Your task to perform on an android device: Go to Maps Image 0: 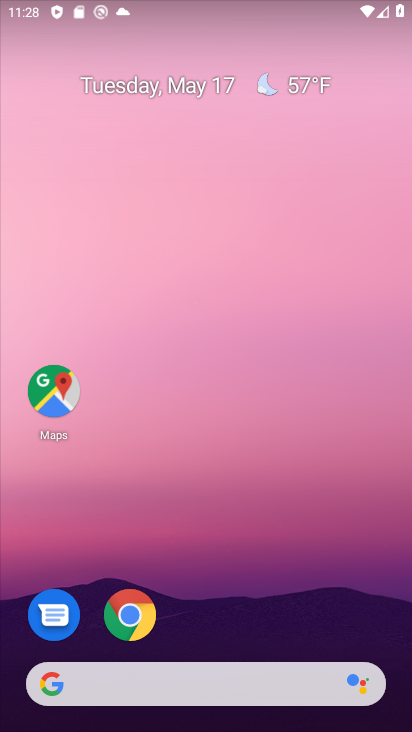
Step 0: drag from (379, 628) to (197, 18)
Your task to perform on an android device: Go to Maps Image 1: 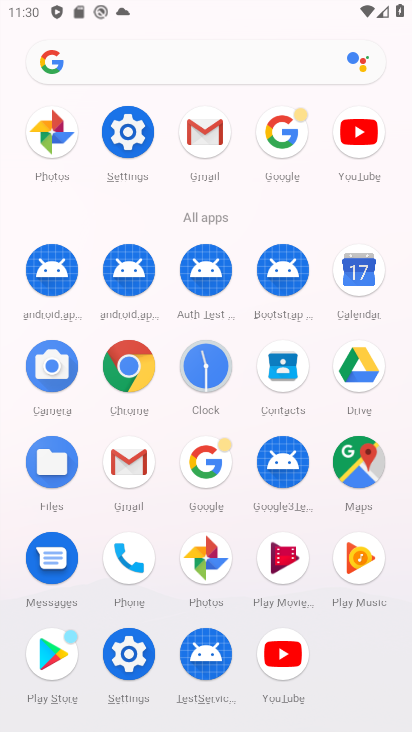
Step 1: click (356, 455)
Your task to perform on an android device: Go to Maps Image 2: 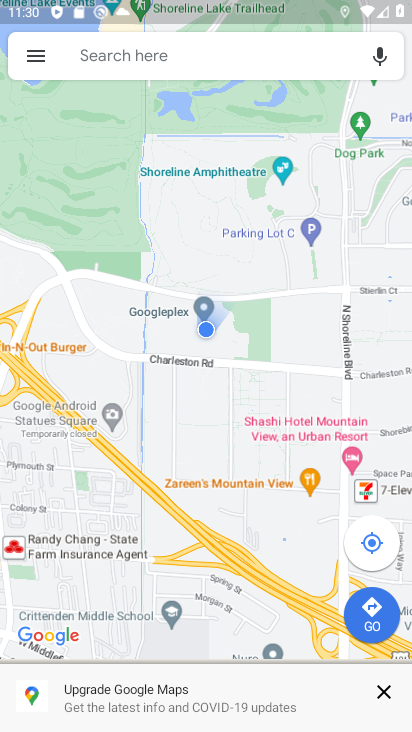
Step 2: task complete